Your task to perform on an android device: Open settings Image 0: 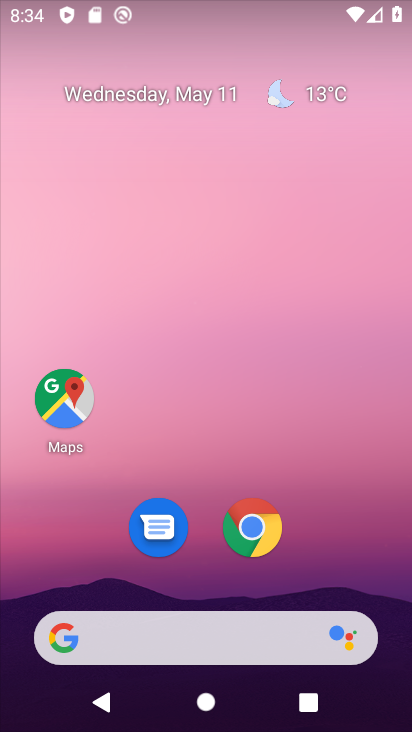
Step 0: drag from (311, 548) to (341, 113)
Your task to perform on an android device: Open settings Image 1: 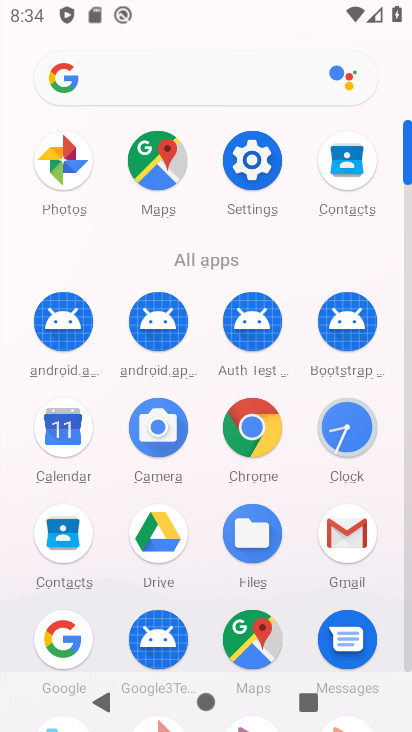
Step 1: click (269, 170)
Your task to perform on an android device: Open settings Image 2: 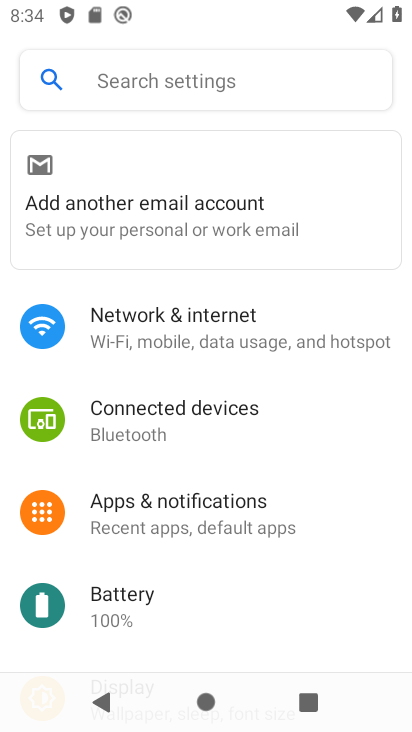
Step 2: task complete